Your task to perform on an android device: What's the news in Guyana? Image 0: 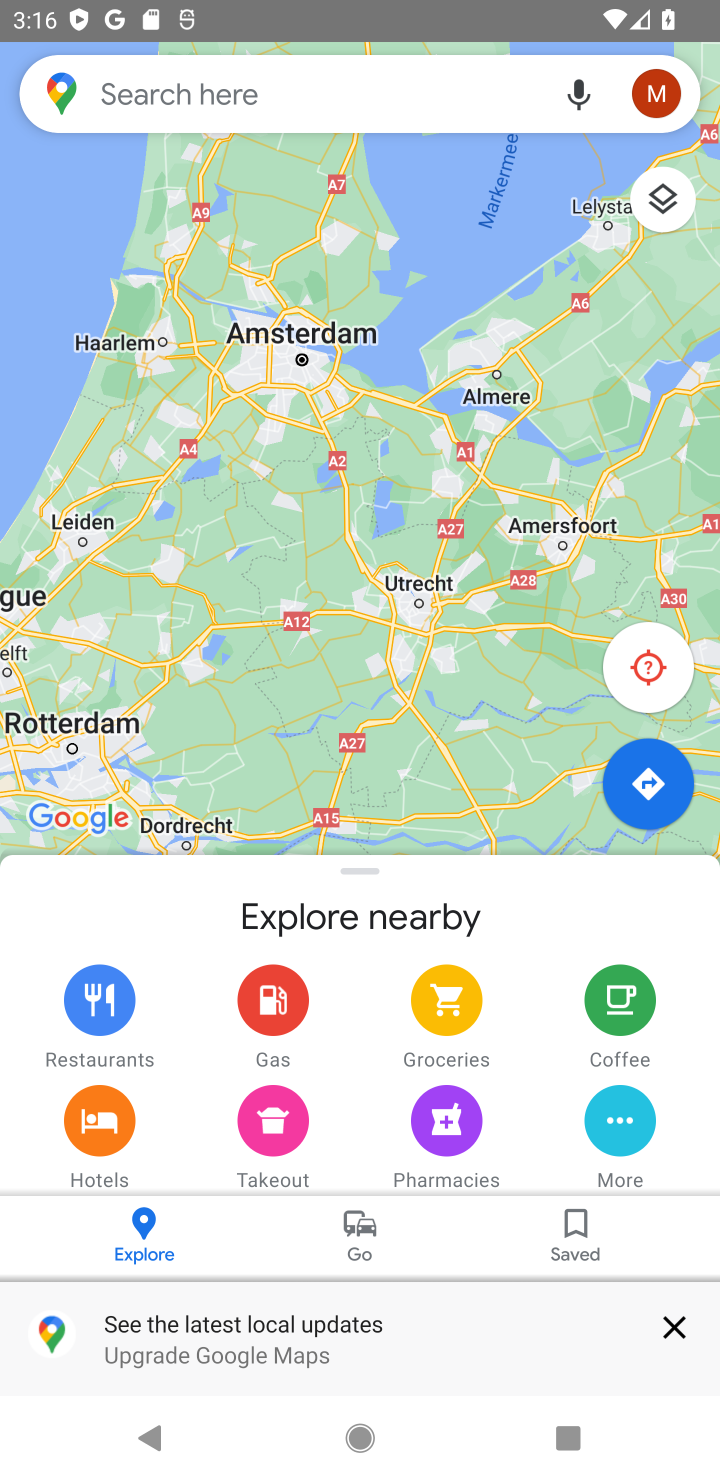
Step 0: press home button
Your task to perform on an android device: What's the news in Guyana? Image 1: 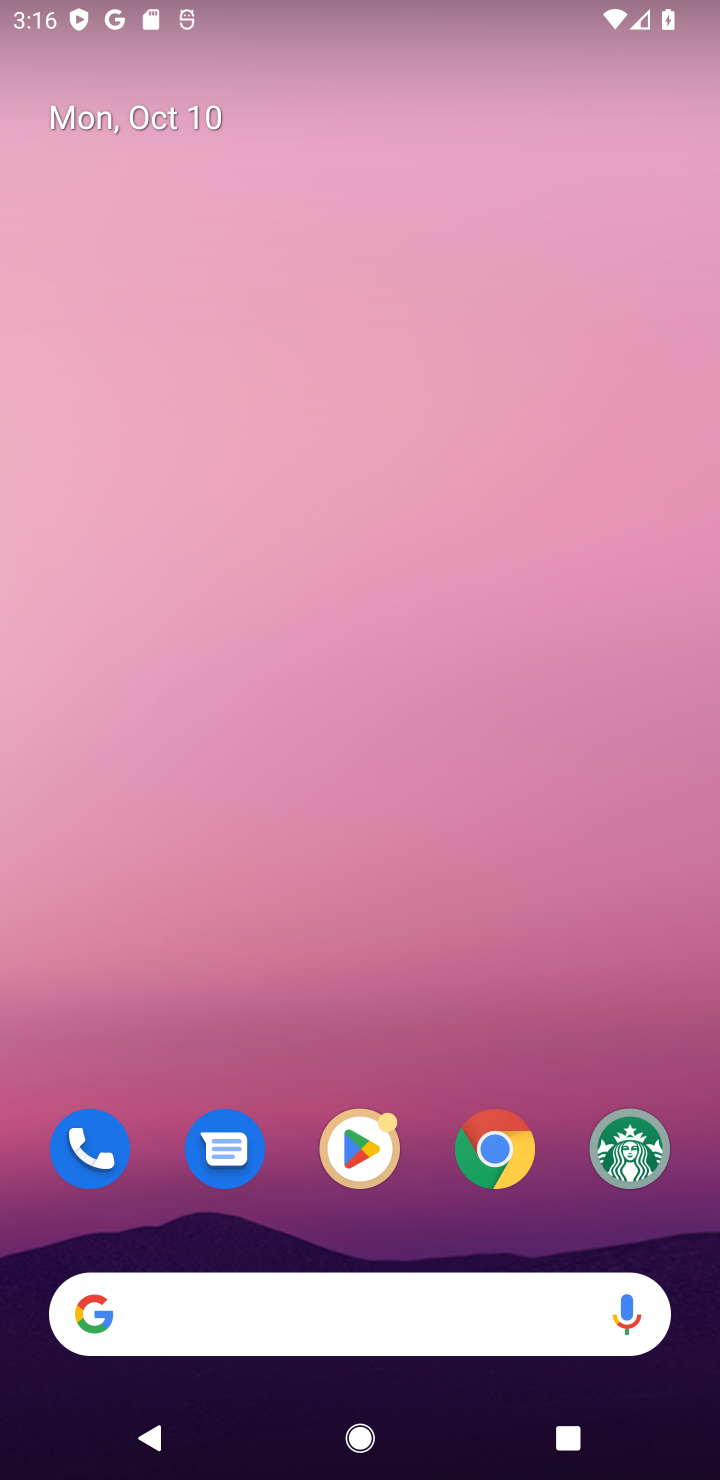
Step 1: click (177, 1280)
Your task to perform on an android device: What's the news in Guyana? Image 2: 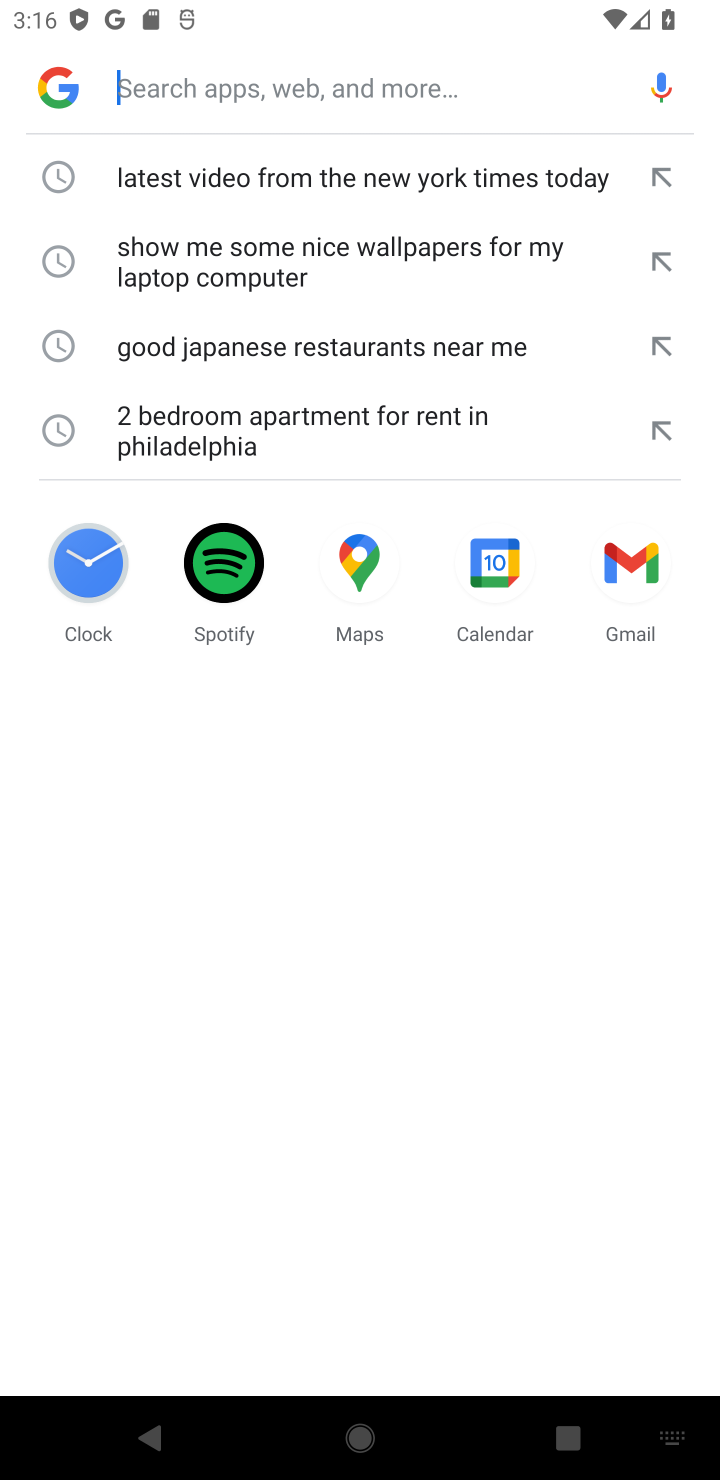
Step 2: type "the news in Guyana"
Your task to perform on an android device: What's the news in Guyana? Image 3: 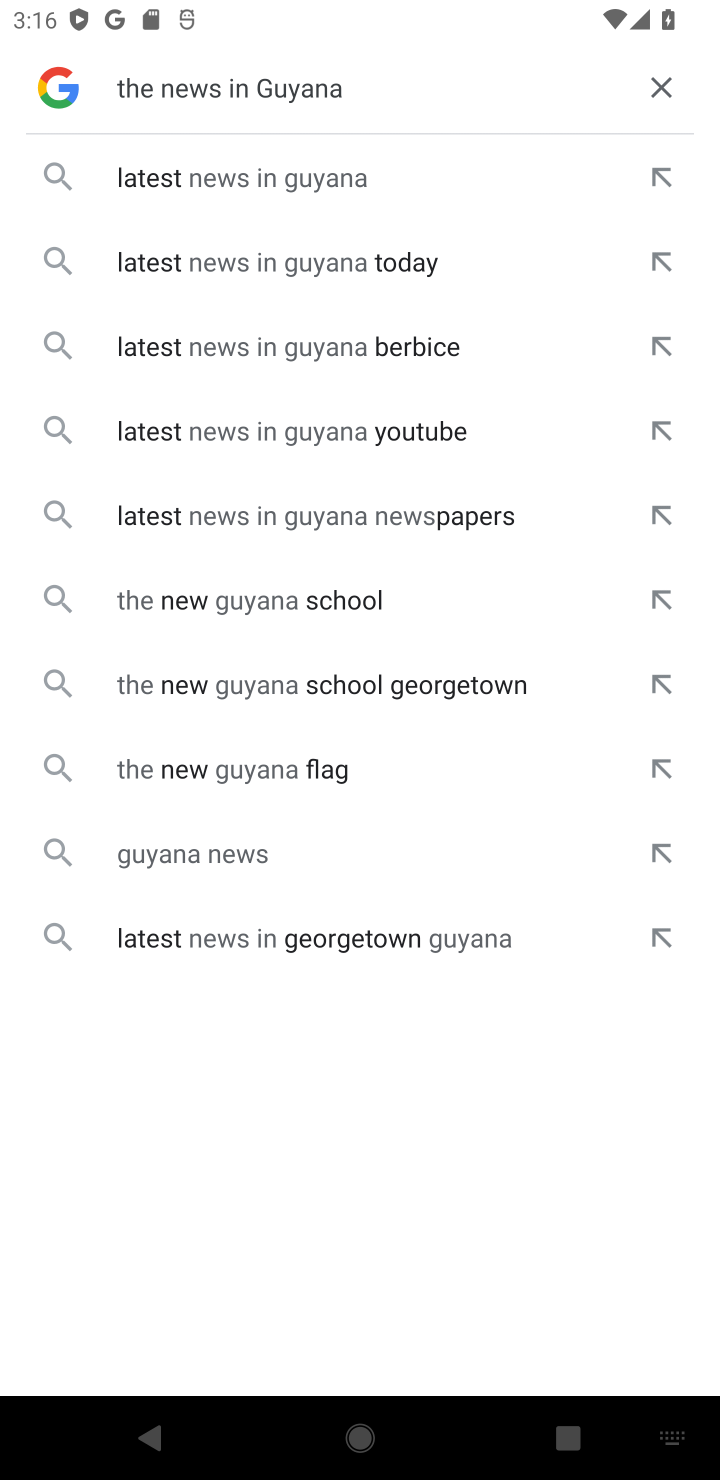
Step 3: click (175, 167)
Your task to perform on an android device: What's the news in Guyana? Image 4: 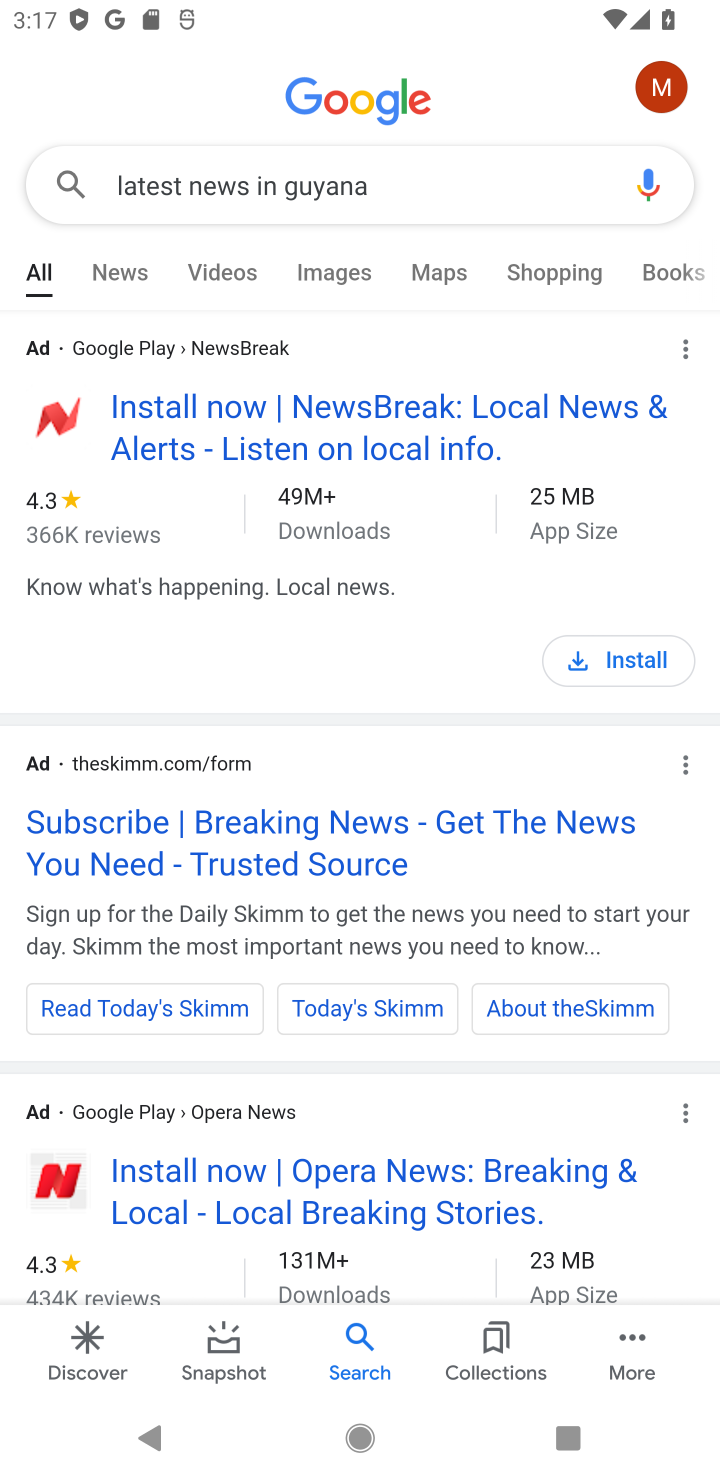
Step 4: task complete